Your task to perform on an android device: Open the Play Movies app and select the watchlist tab. Image 0: 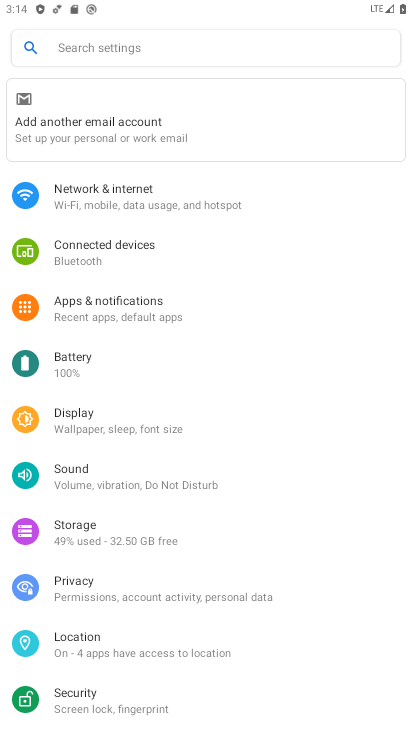
Step 0: press home button
Your task to perform on an android device: Open the Play Movies app and select the watchlist tab. Image 1: 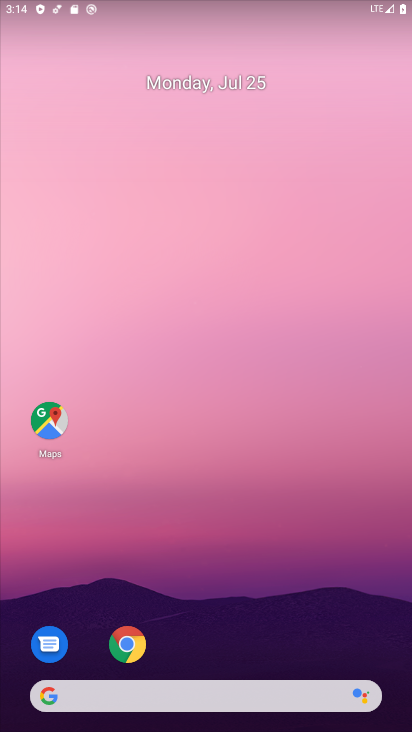
Step 1: drag from (293, 661) to (211, 198)
Your task to perform on an android device: Open the Play Movies app and select the watchlist tab. Image 2: 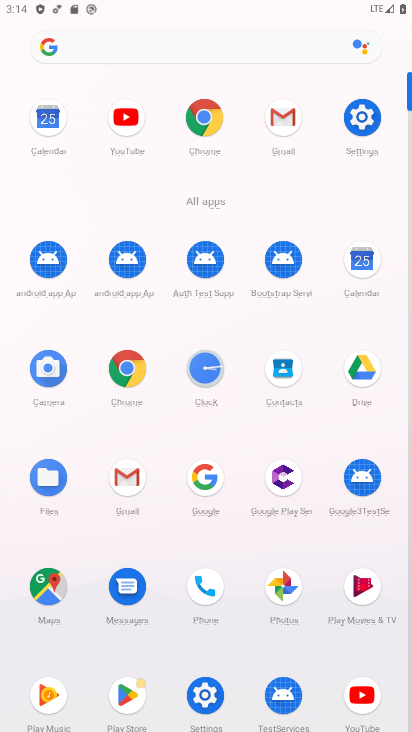
Step 2: click (372, 583)
Your task to perform on an android device: Open the Play Movies app and select the watchlist tab. Image 3: 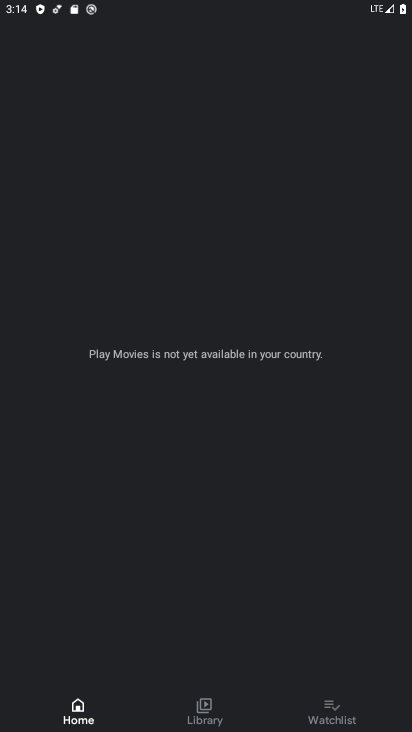
Step 3: click (348, 717)
Your task to perform on an android device: Open the Play Movies app and select the watchlist tab. Image 4: 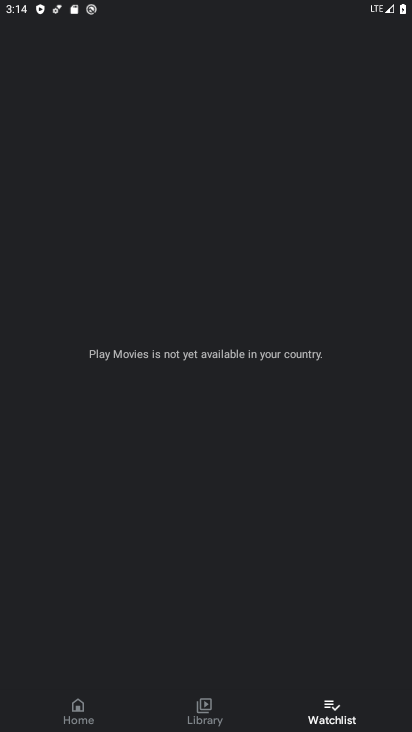
Step 4: task complete